Your task to perform on an android device: Go to wifi settings Image 0: 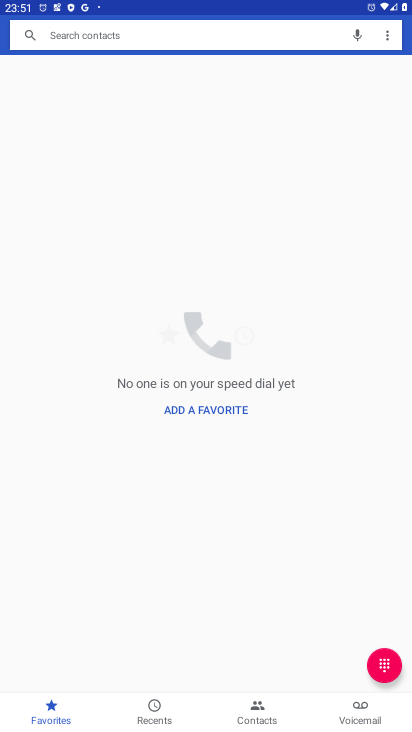
Step 0: press home button
Your task to perform on an android device: Go to wifi settings Image 1: 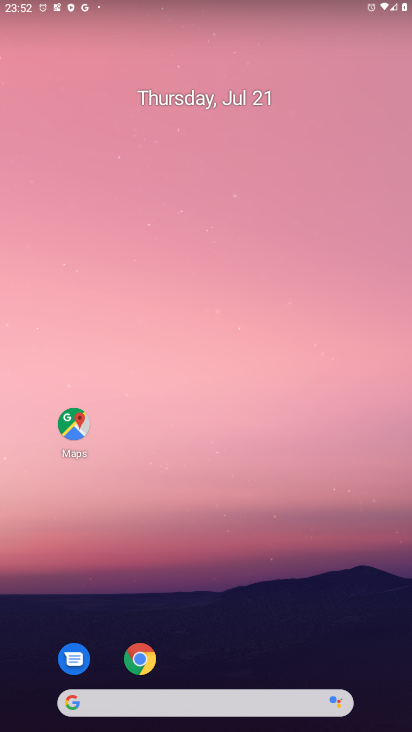
Step 1: drag from (207, 707) to (227, 63)
Your task to perform on an android device: Go to wifi settings Image 2: 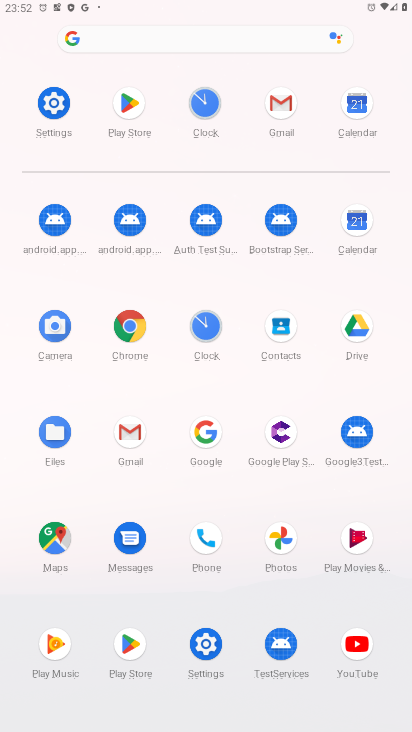
Step 2: click (54, 104)
Your task to perform on an android device: Go to wifi settings Image 3: 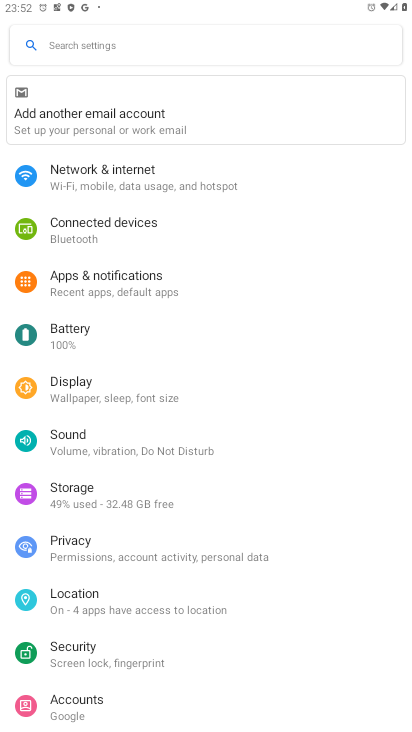
Step 3: click (108, 183)
Your task to perform on an android device: Go to wifi settings Image 4: 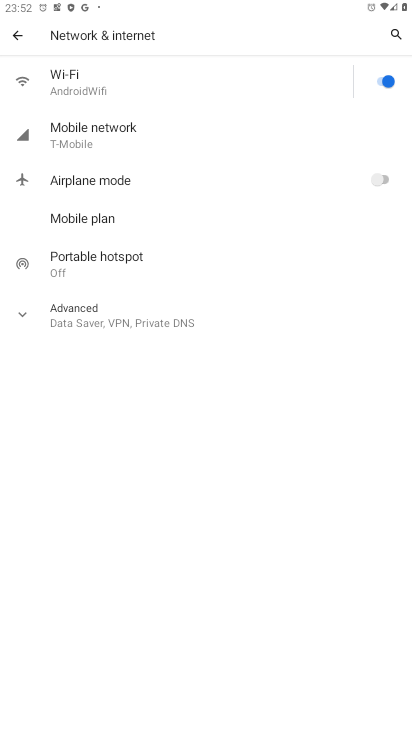
Step 4: click (77, 92)
Your task to perform on an android device: Go to wifi settings Image 5: 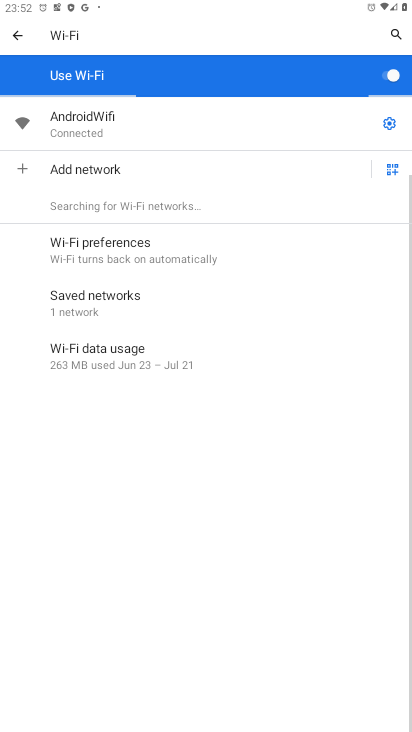
Step 5: click (389, 121)
Your task to perform on an android device: Go to wifi settings Image 6: 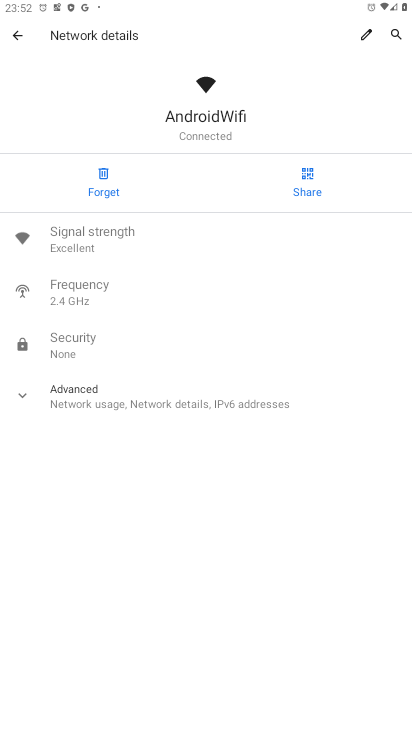
Step 6: task complete